Your task to perform on an android device: Open display settings Image 0: 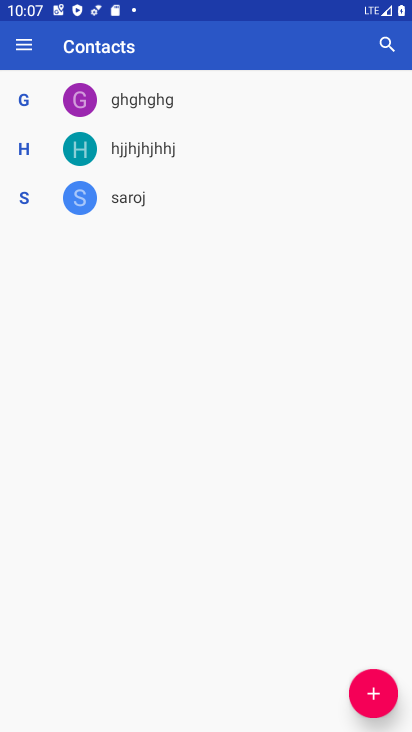
Step 0: press home button
Your task to perform on an android device: Open display settings Image 1: 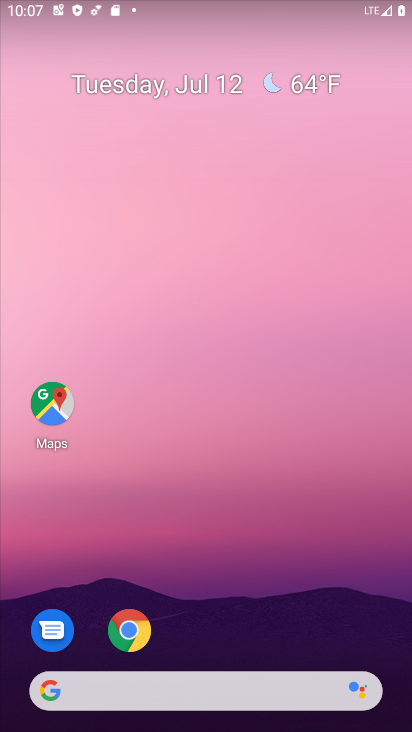
Step 1: drag from (247, 517) to (291, 74)
Your task to perform on an android device: Open display settings Image 2: 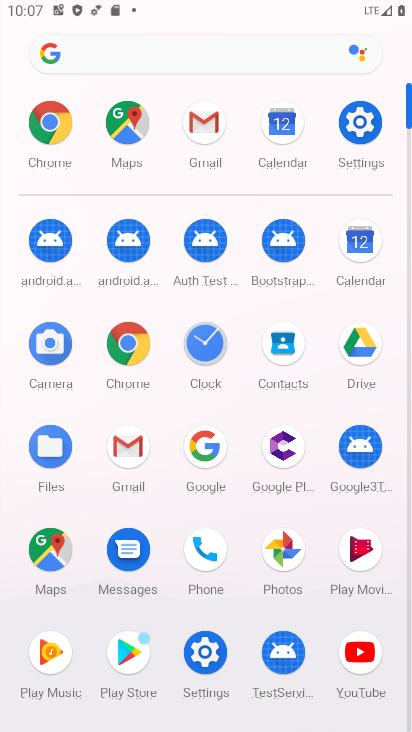
Step 2: click (351, 124)
Your task to perform on an android device: Open display settings Image 3: 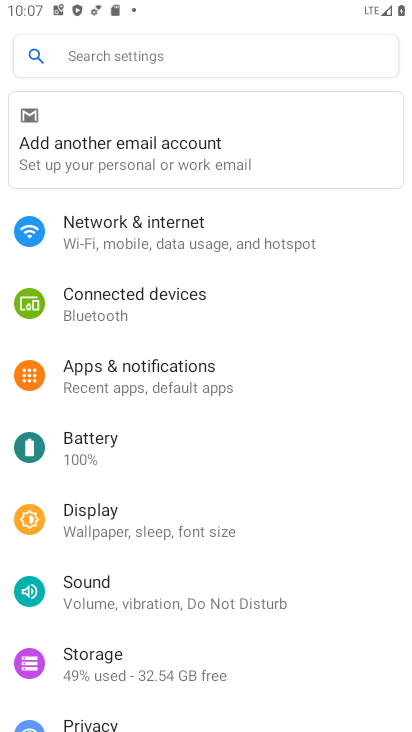
Step 3: click (138, 534)
Your task to perform on an android device: Open display settings Image 4: 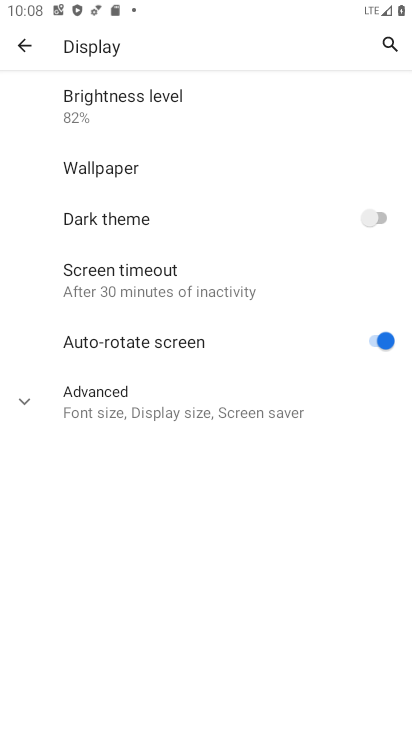
Step 4: task complete